Your task to perform on an android device: Open sound settings Image 0: 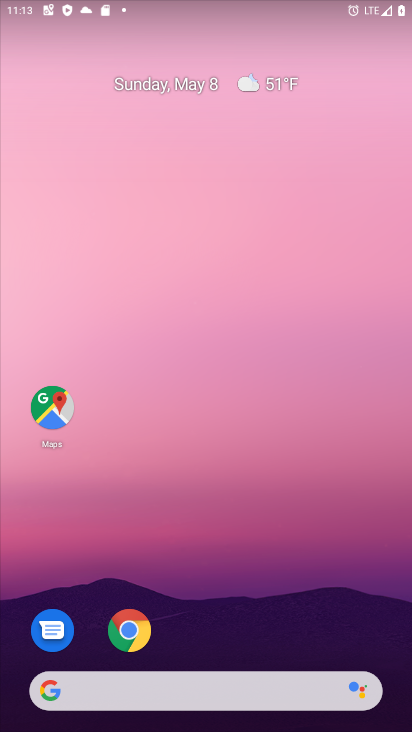
Step 0: drag from (309, 269) to (225, 54)
Your task to perform on an android device: Open sound settings Image 1: 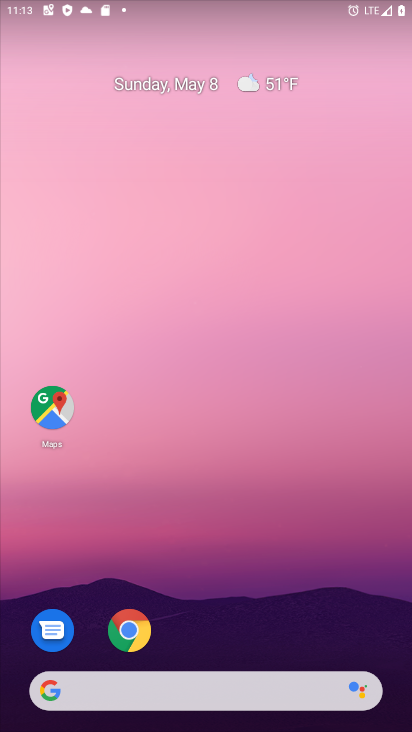
Step 1: click (253, 34)
Your task to perform on an android device: Open sound settings Image 2: 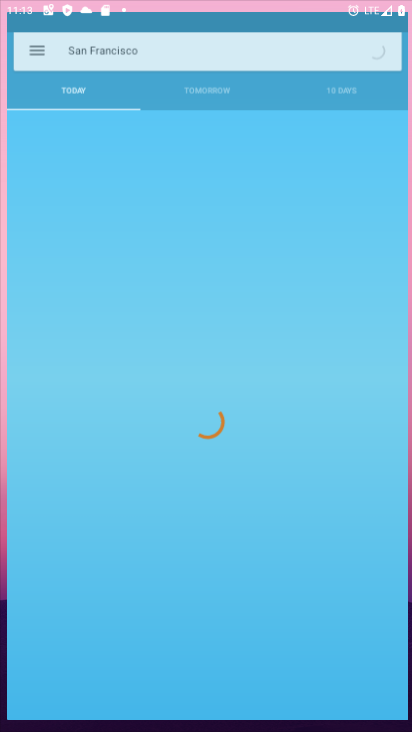
Step 2: drag from (320, 630) to (303, 120)
Your task to perform on an android device: Open sound settings Image 3: 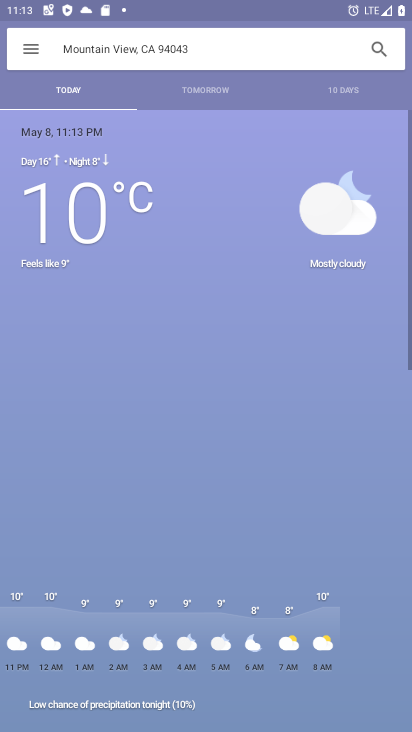
Step 3: press back button
Your task to perform on an android device: Open sound settings Image 4: 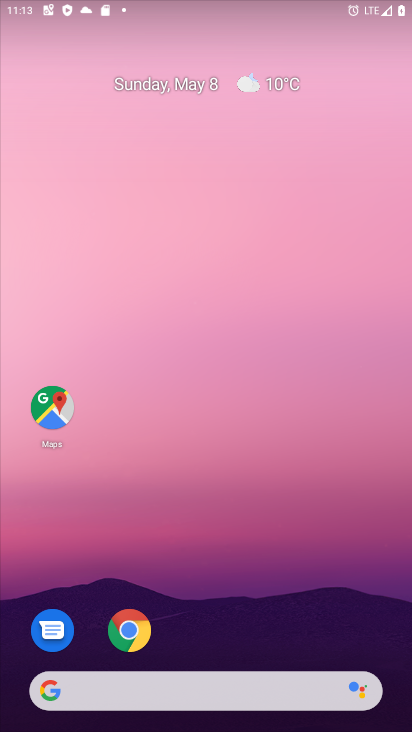
Step 4: drag from (368, 630) to (288, 10)
Your task to perform on an android device: Open sound settings Image 5: 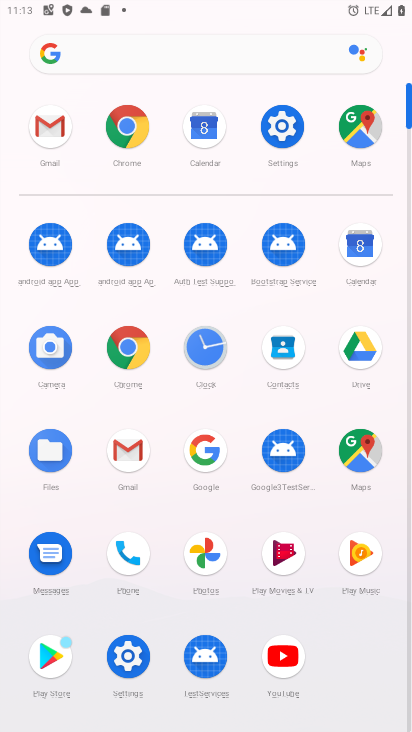
Step 5: click (287, 139)
Your task to perform on an android device: Open sound settings Image 6: 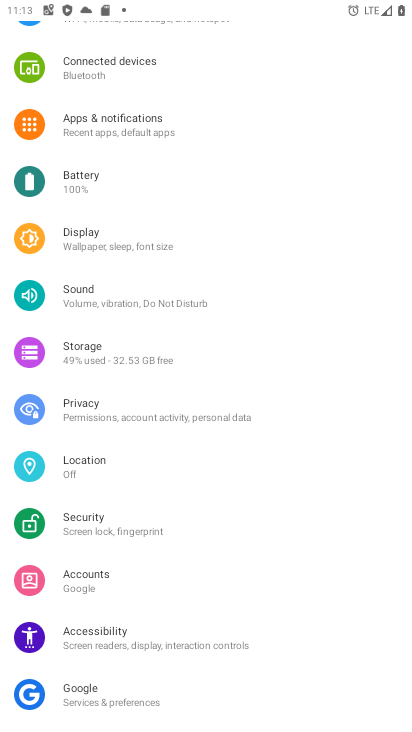
Step 6: click (134, 298)
Your task to perform on an android device: Open sound settings Image 7: 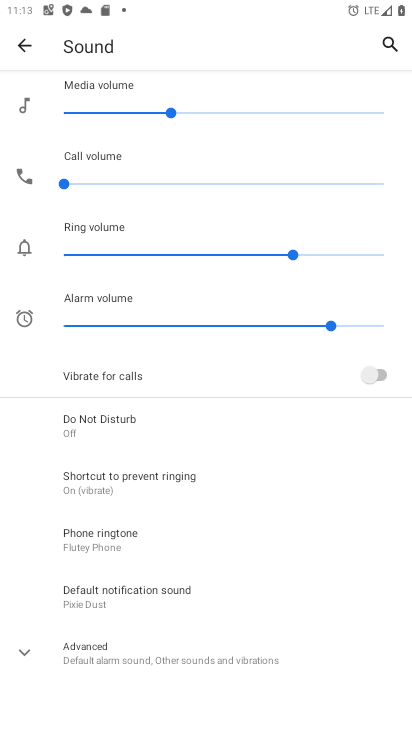
Step 7: task complete